Your task to perform on an android device: check out phone information Image 0: 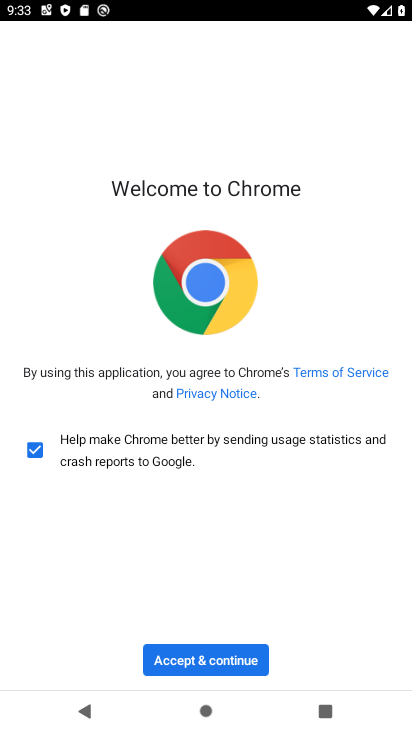
Step 0: press home button
Your task to perform on an android device: check out phone information Image 1: 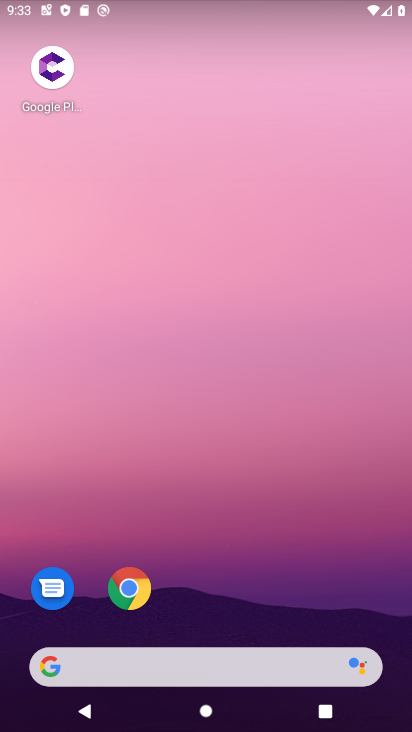
Step 1: drag from (170, 661) to (180, 117)
Your task to perform on an android device: check out phone information Image 2: 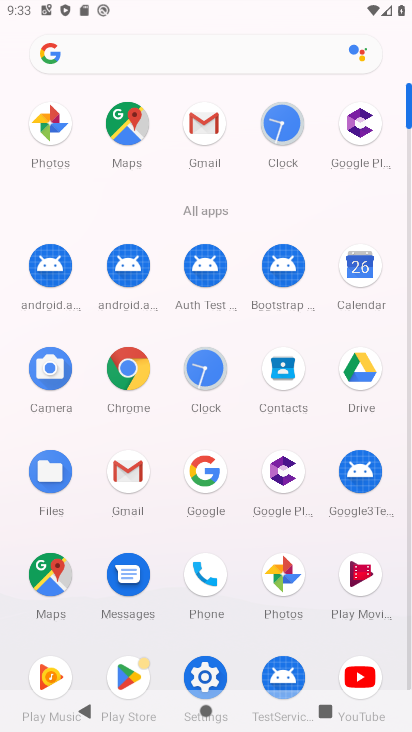
Step 2: click (205, 678)
Your task to perform on an android device: check out phone information Image 3: 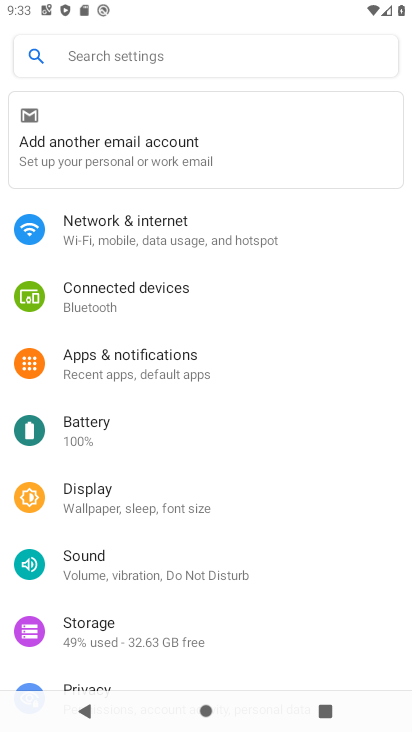
Step 3: drag from (132, 537) to (131, 447)
Your task to perform on an android device: check out phone information Image 4: 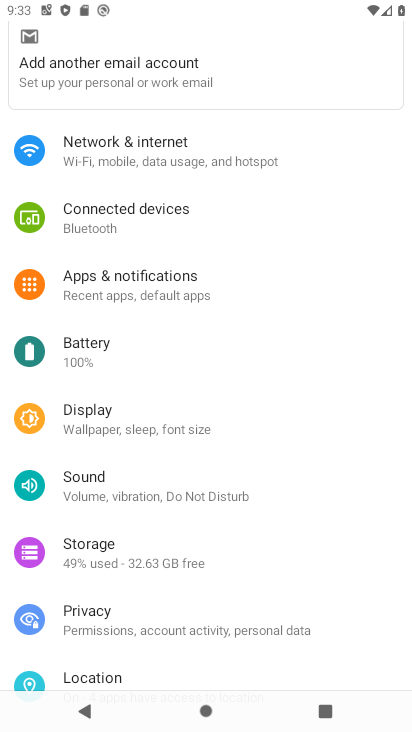
Step 4: drag from (126, 567) to (145, 504)
Your task to perform on an android device: check out phone information Image 5: 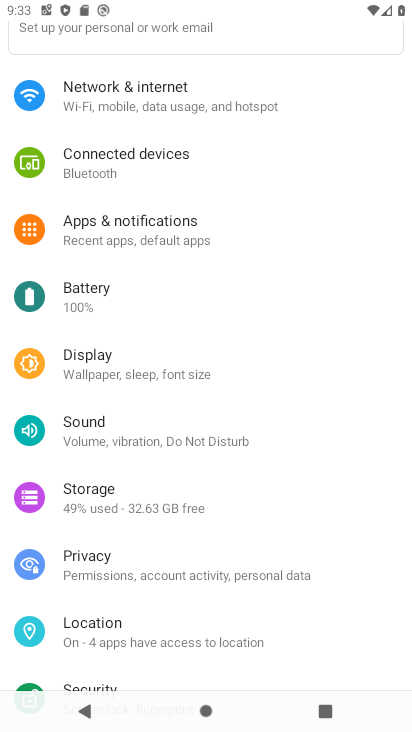
Step 5: drag from (122, 594) to (187, 503)
Your task to perform on an android device: check out phone information Image 6: 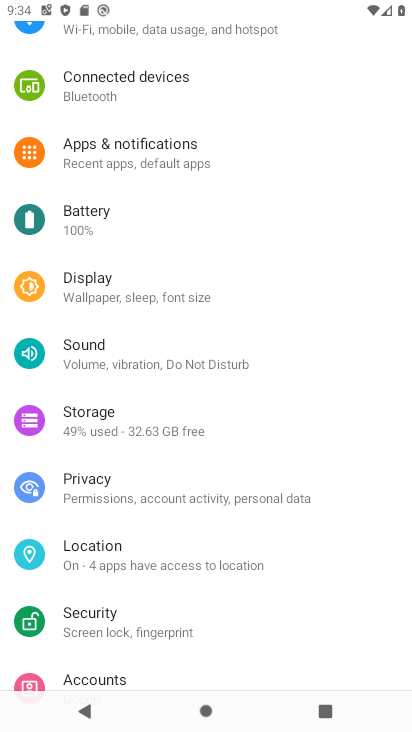
Step 6: drag from (117, 607) to (211, 467)
Your task to perform on an android device: check out phone information Image 7: 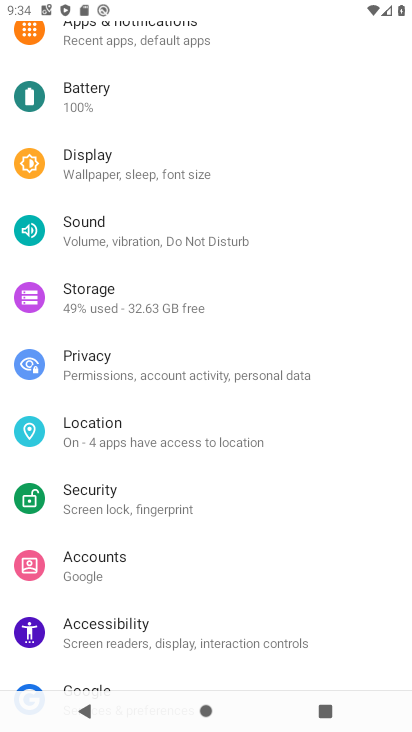
Step 7: drag from (113, 605) to (181, 490)
Your task to perform on an android device: check out phone information Image 8: 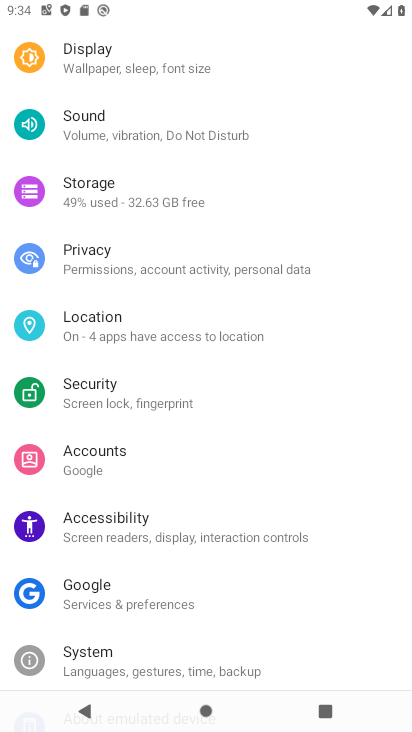
Step 8: drag from (100, 635) to (231, 483)
Your task to perform on an android device: check out phone information Image 9: 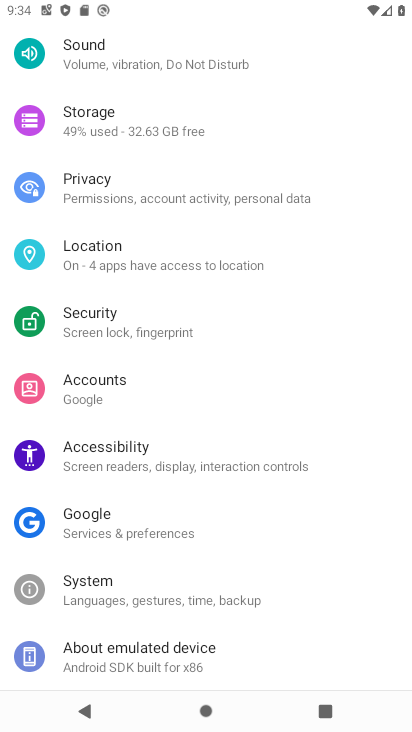
Step 9: click (170, 655)
Your task to perform on an android device: check out phone information Image 10: 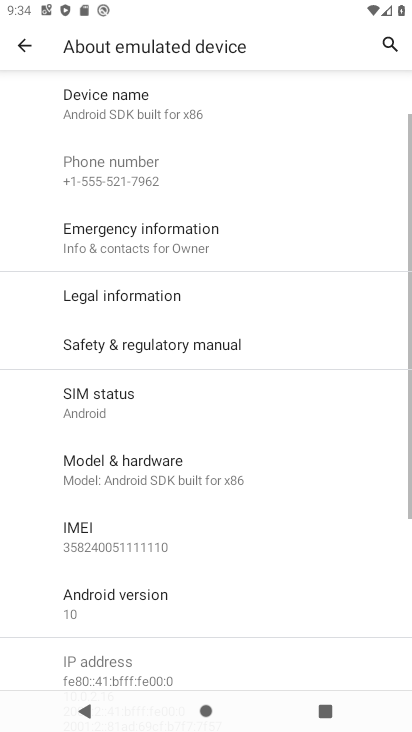
Step 10: task complete